Your task to perform on an android device: change alarm snooze length Image 0: 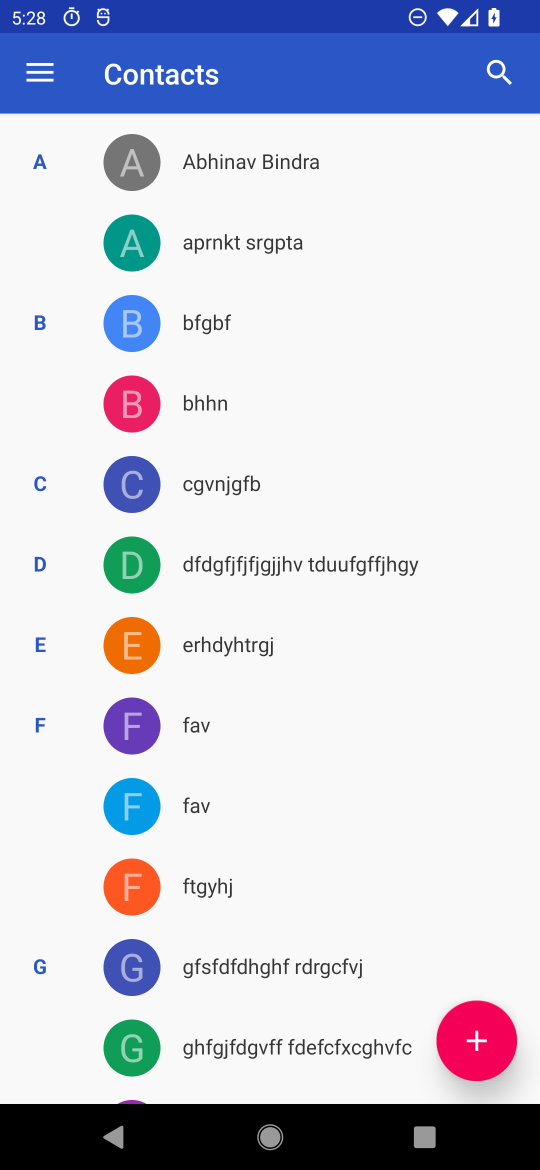
Step 0: press home button
Your task to perform on an android device: change alarm snooze length Image 1: 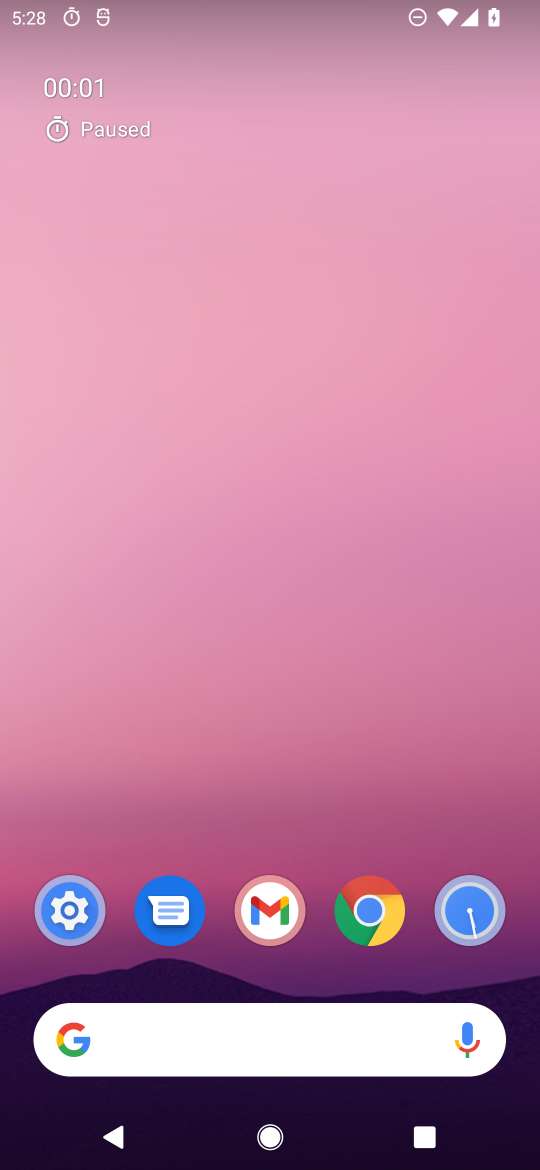
Step 1: click (475, 876)
Your task to perform on an android device: change alarm snooze length Image 2: 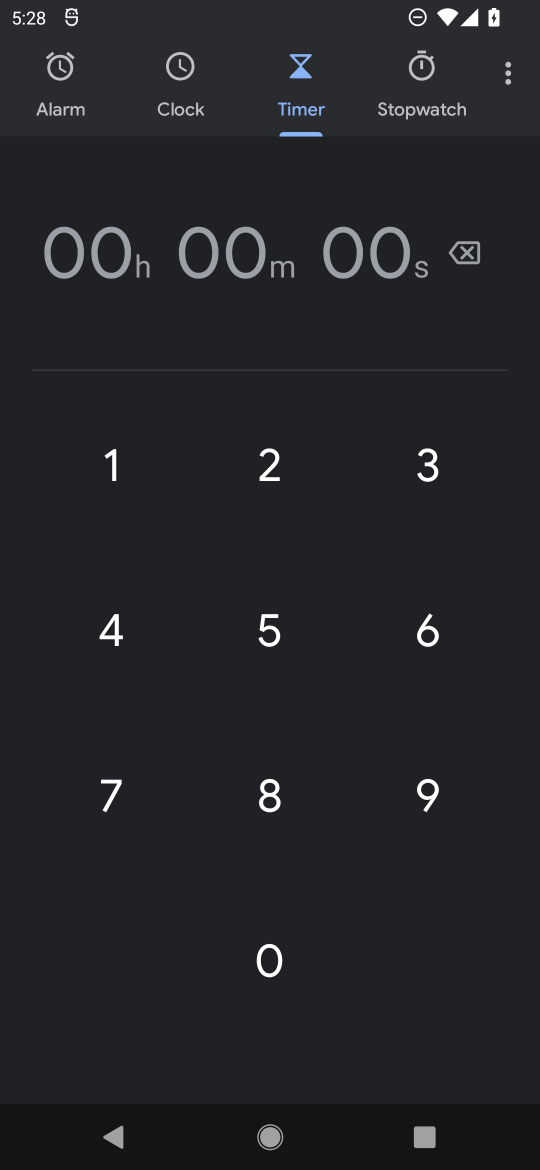
Step 2: click (507, 77)
Your task to perform on an android device: change alarm snooze length Image 3: 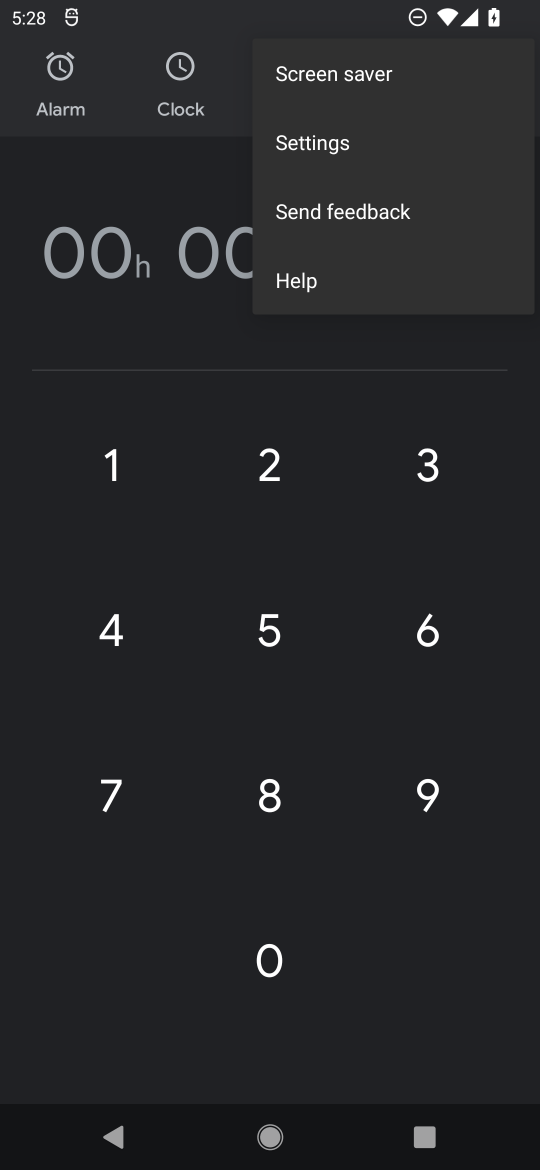
Step 3: click (295, 135)
Your task to perform on an android device: change alarm snooze length Image 4: 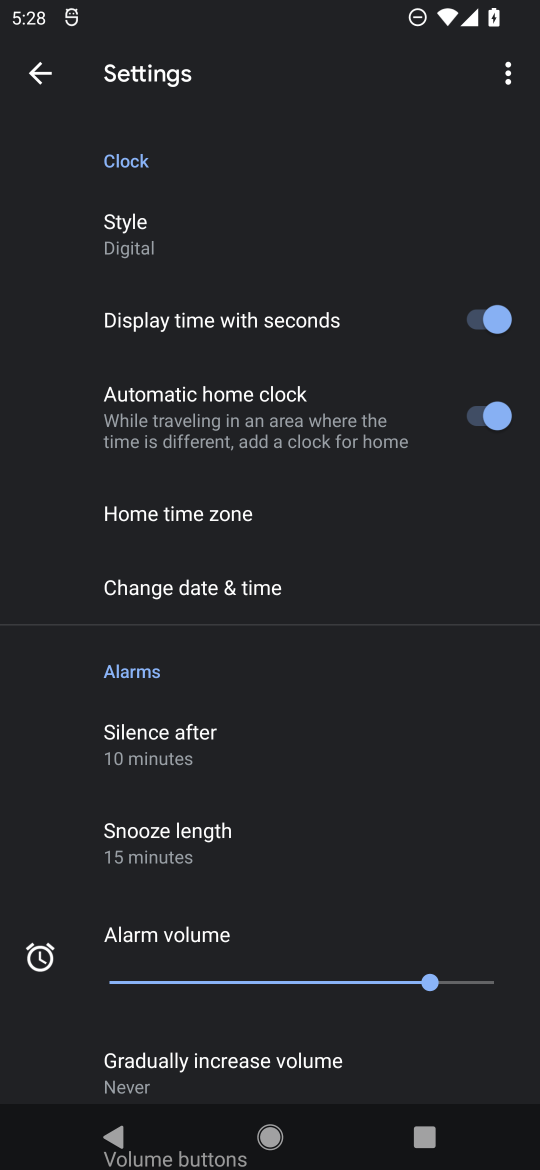
Step 4: task complete